Your task to perform on an android device: open sync settings in chrome Image 0: 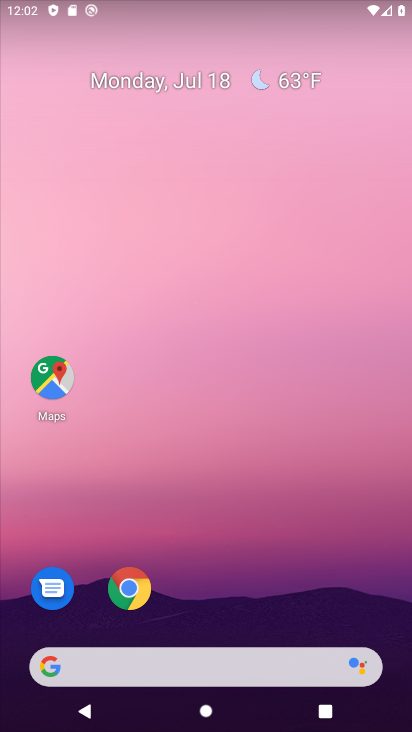
Step 0: click (131, 587)
Your task to perform on an android device: open sync settings in chrome Image 1: 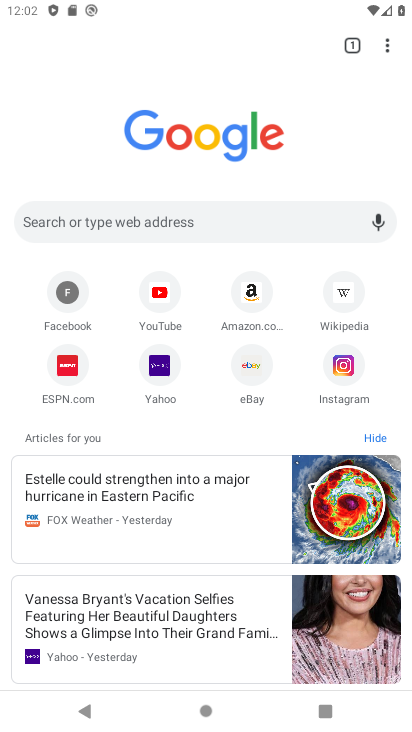
Step 1: click (390, 50)
Your task to perform on an android device: open sync settings in chrome Image 2: 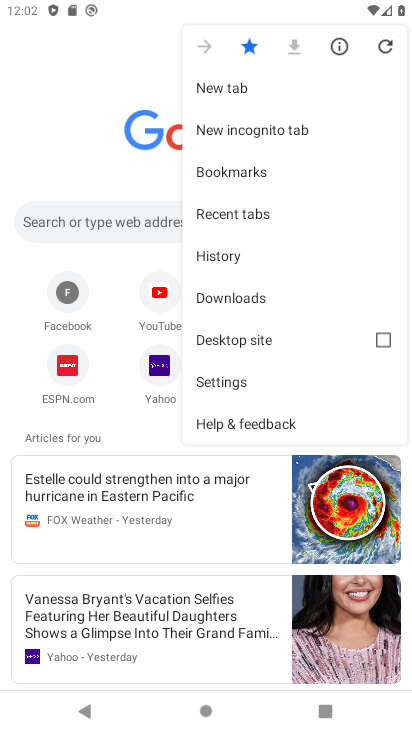
Step 2: click (219, 380)
Your task to perform on an android device: open sync settings in chrome Image 3: 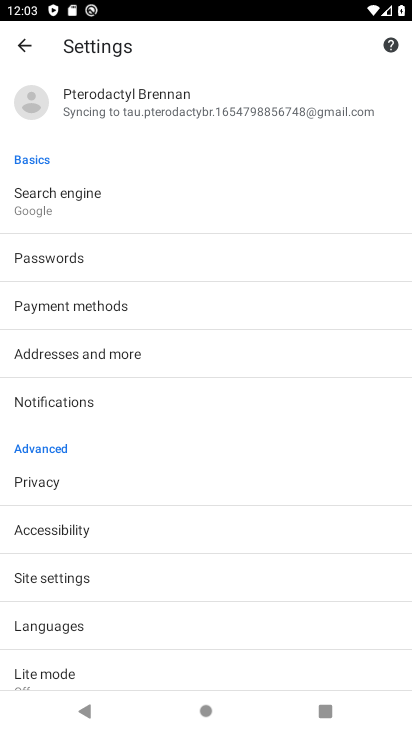
Step 3: click (57, 579)
Your task to perform on an android device: open sync settings in chrome Image 4: 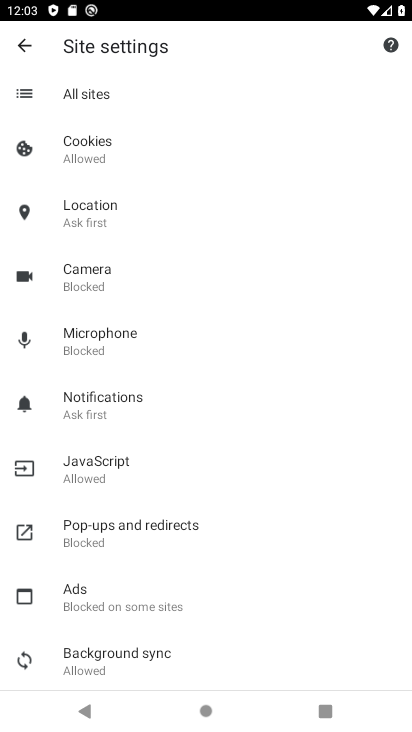
Step 4: click (114, 655)
Your task to perform on an android device: open sync settings in chrome Image 5: 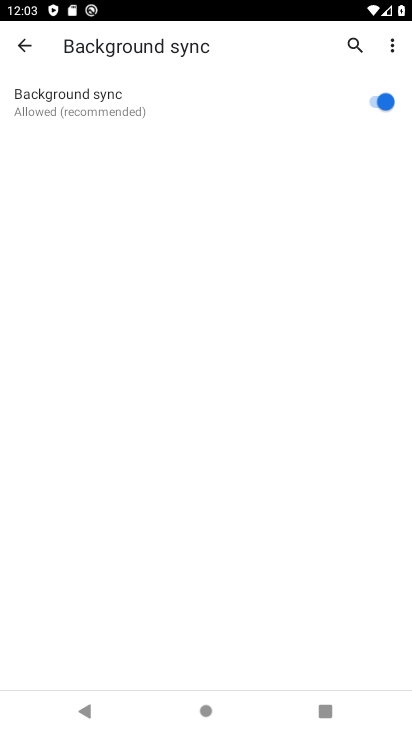
Step 5: task complete